Your task to perform on an android device: turn off location Image 0: 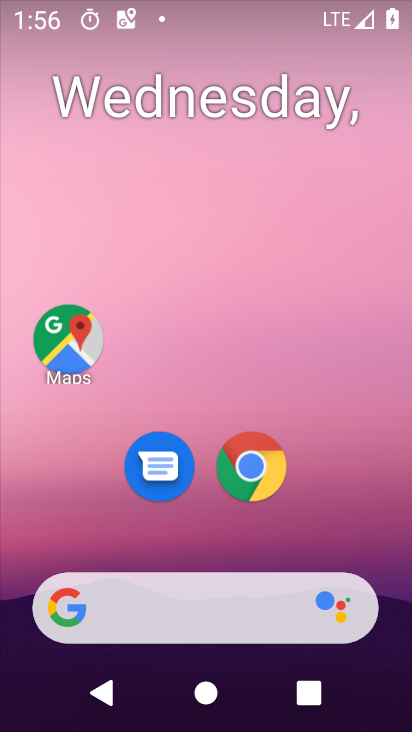
Step 0: drag from (316, 508) to (294, 116)
Your task to perform on an android device: turn off location Image 1: 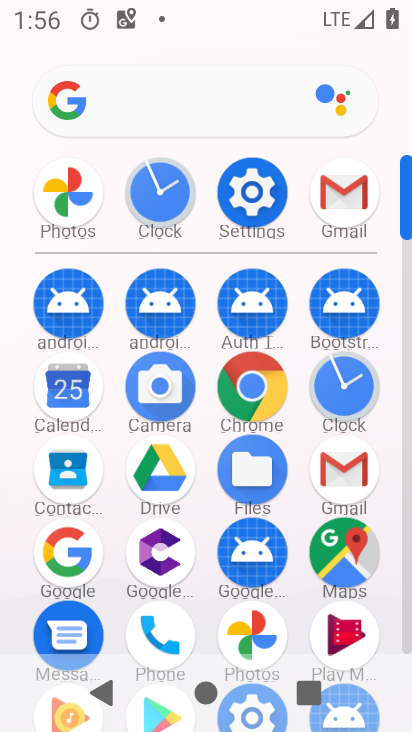
Step 1: click (243, 197)
Your task to perform on an android device: turn off location Image 2: 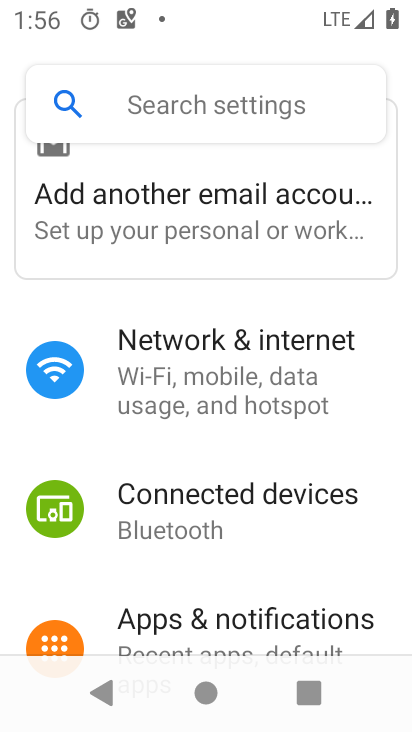
Step 2: drag from (211, 544) to (199, 192)
Your task to perform on an android device: turn off location Image 3: 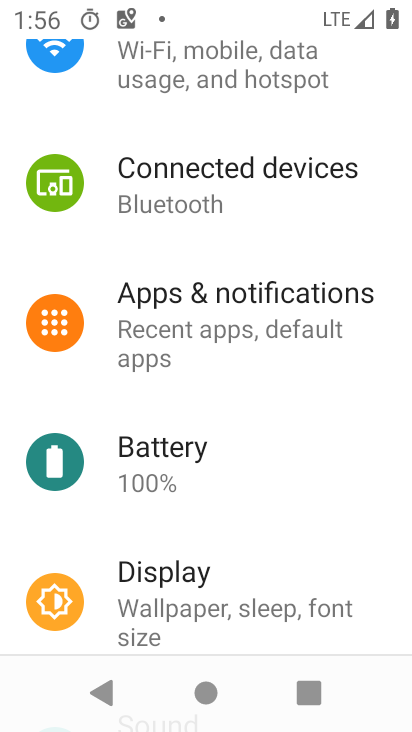
Step 3: drag from (236, 503) to (241, 258)
Your task to perform on an android device: turn off location Image 4: 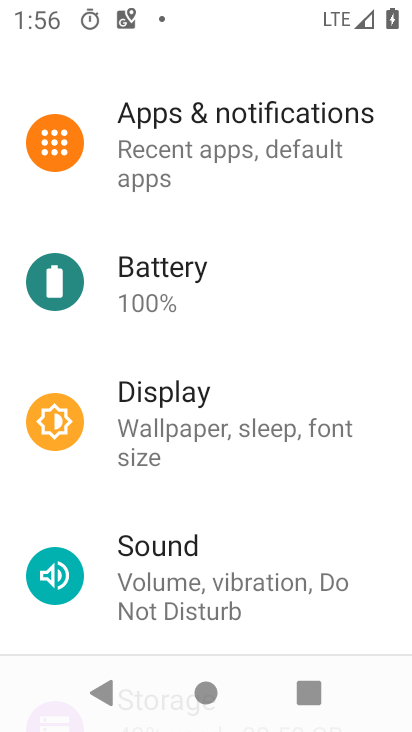
Step 4: drag from (266, 531) to (239, 204)
Your task to perform on an android device: turn off location Image 5: 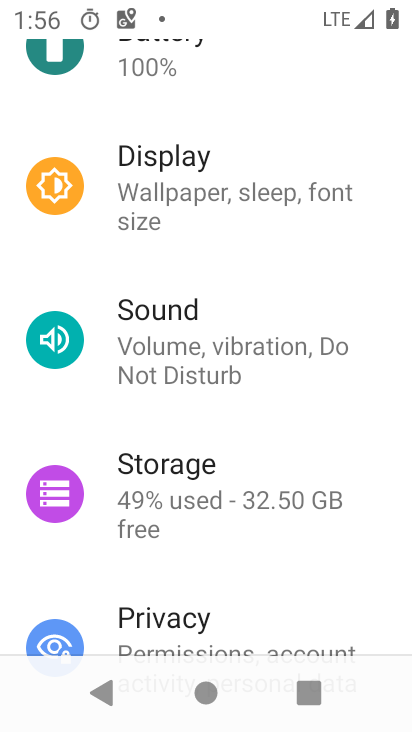
Step 5: drag from (241, 541) to (264, 221)
Your task to perform on an android device: turn off location Image 6: 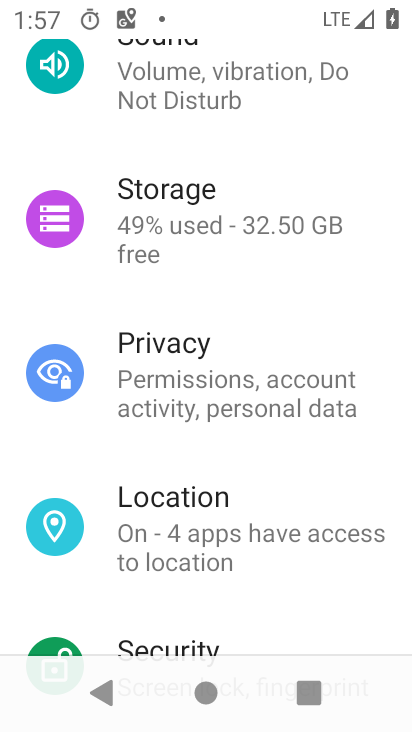
Step 6: click (267, 517)
Your task to perform on an android device: turn off location Image 7: 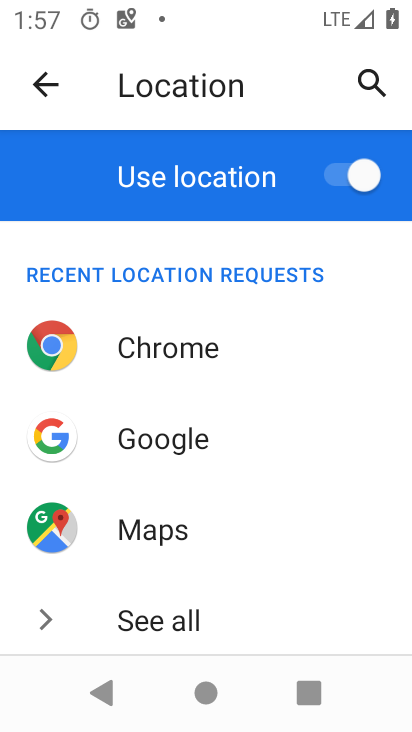
Step 7: click (362, 174)
Your task to perform on an android device: turn off location Image 8: 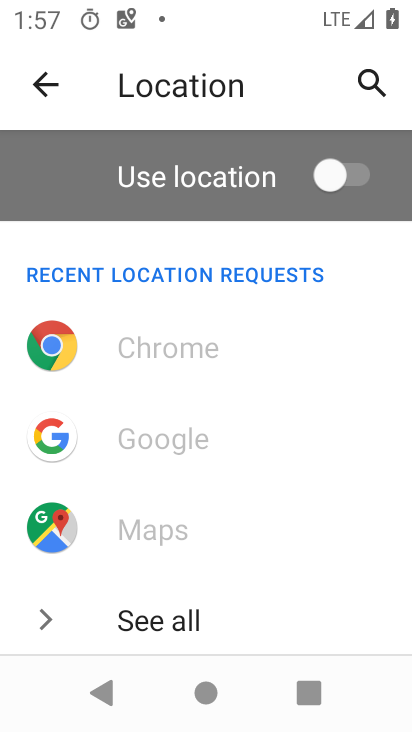
Step 8: task complete